Your task to perform on an android device: open a bookmark in the chrome app Image 0: 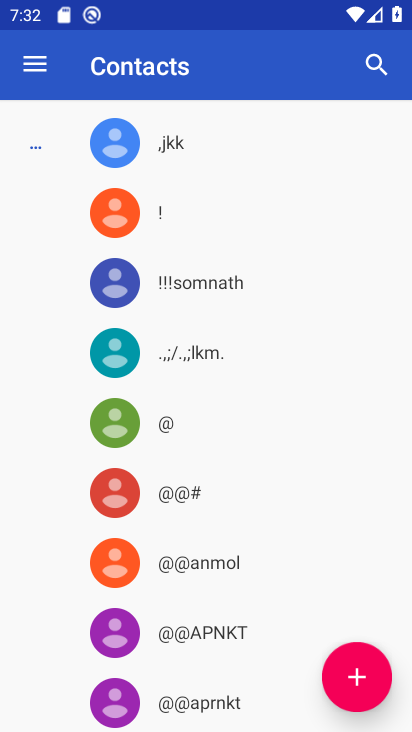
Step 0: press home button
Your task to perform on an android device: open a bookmark in the chrome app Image 1: 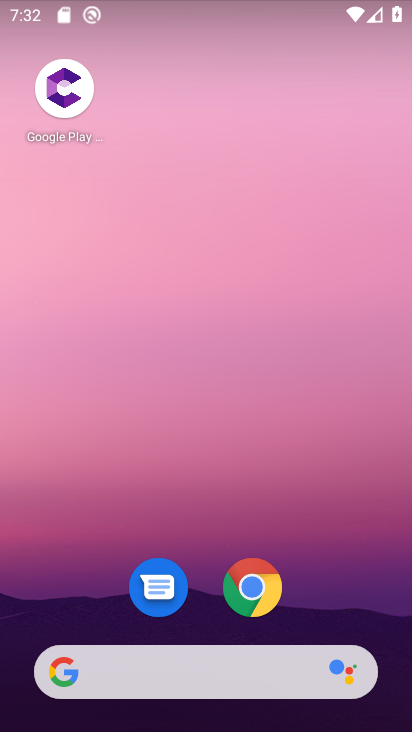
Step 1: click (246, 596)
Your task to perform on an android device: open a bookmark in the chrome app Image 2: 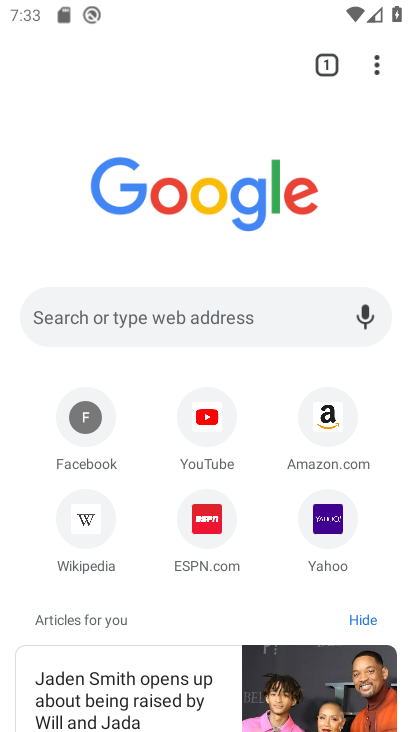
Step 2: click (386, 59)
Your task to perform on an android device: open a bookmark in the chrome app Image 3: 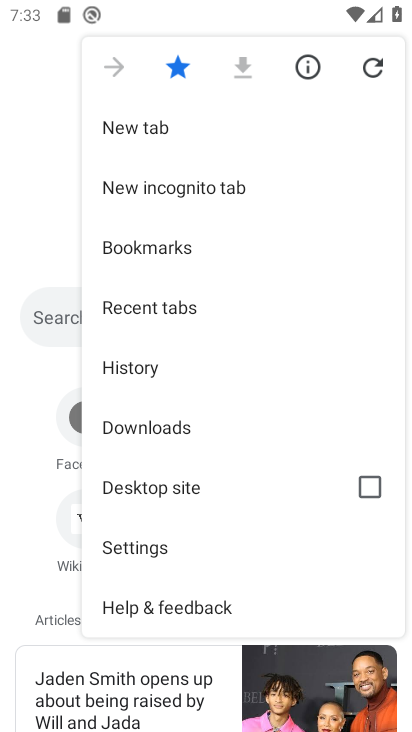
Step 3: click (140, 253)
Your task to perform on an android device: open a bookmark in the chrome app Image 4: 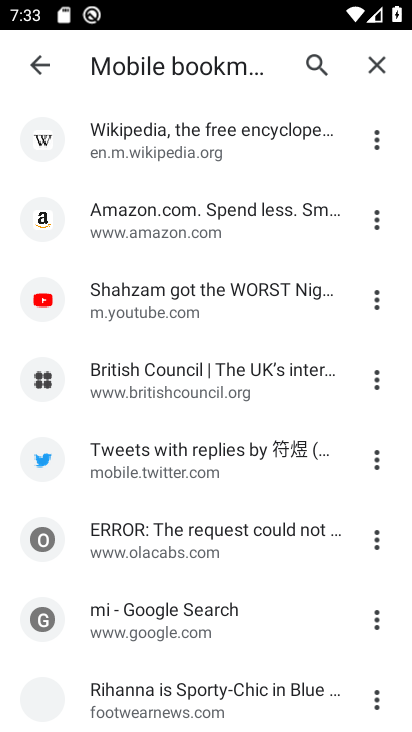
Step 4: click (191, 308)
Your task to perform on an android device: open a bookmark in the chrome app Image 5: 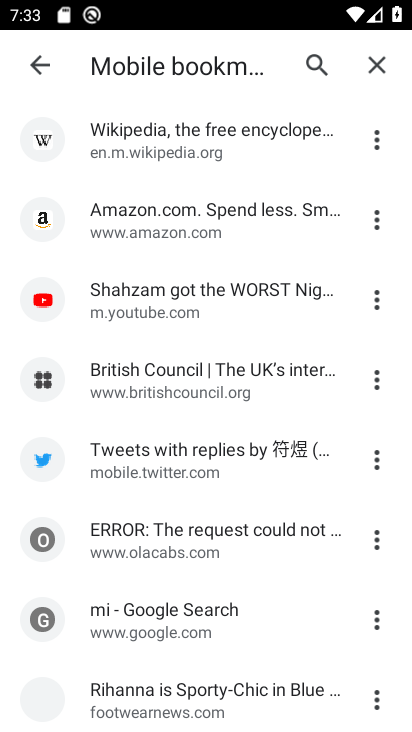
Step 5: click (159, 299)
Your task to perform on an android device: open a bookmark in the chrome app Image 6: 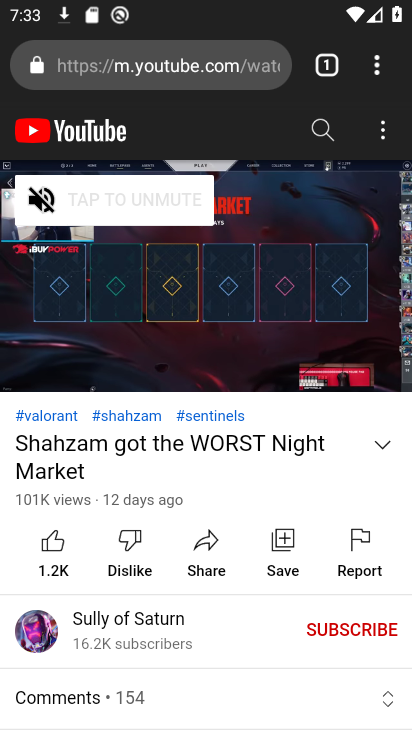
Step 6: task complete